Your task to perform on an android device: toggle improve location accuracy Image 0: 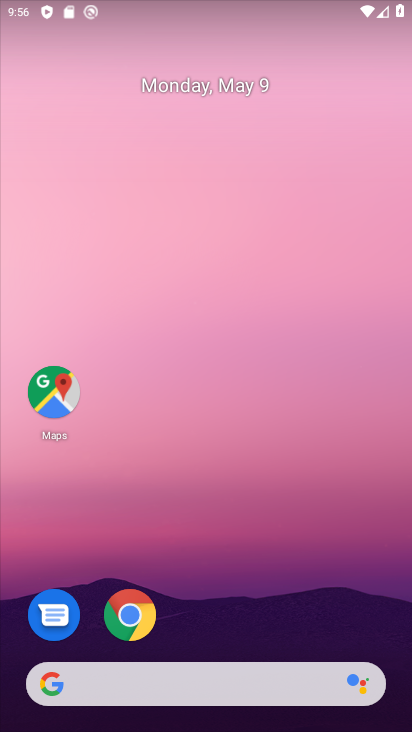
Step 0: drag from (237, 540) to (273, 164)
Your task to perform on an android device: toggle improve location accuracy Image 1: 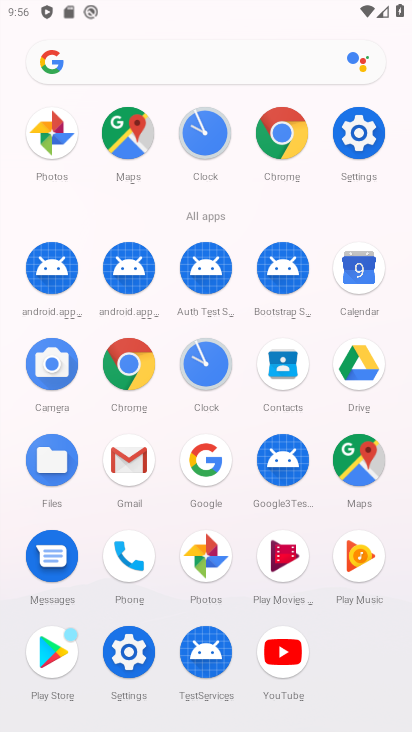
Step 1: click (136, 645)
Your task to perform on an android device: toggle improve location accuracy Image 2: 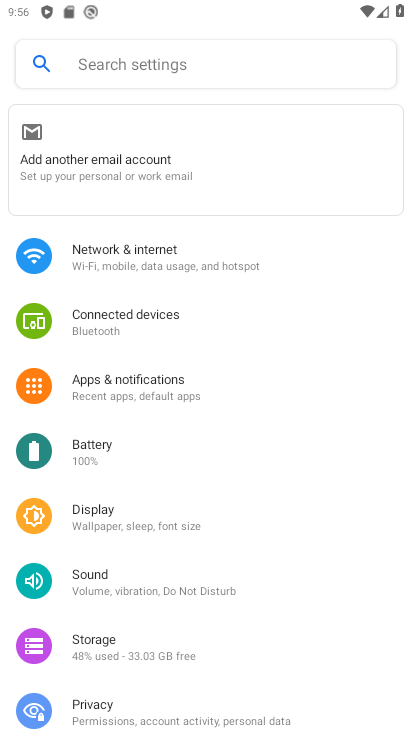
Step 2: drag from (226, 580) to (255, 268)
Your task to perform on an android device: toggle improve location accuracy Image 3: 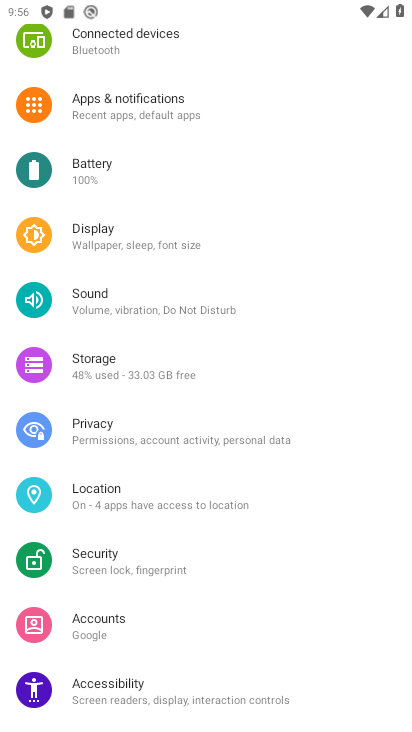
Step 3: click (149, 496)
Your task to perform on an android device: toggle improve location accuracy Image 4: 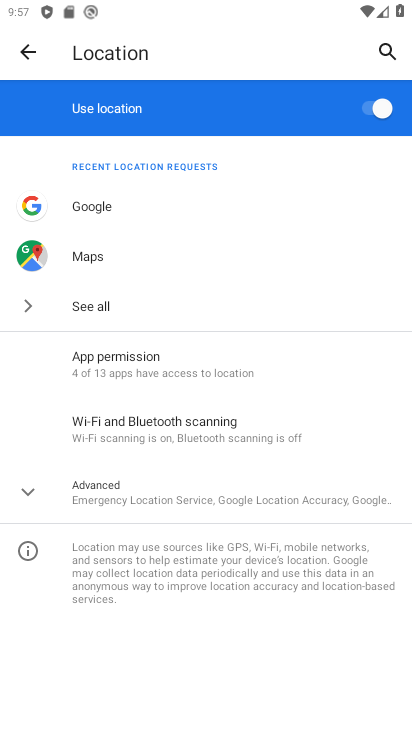
Step 4: click (171, 497)
Your task to perform on an android device: toggle improve location accuracy Image 5: 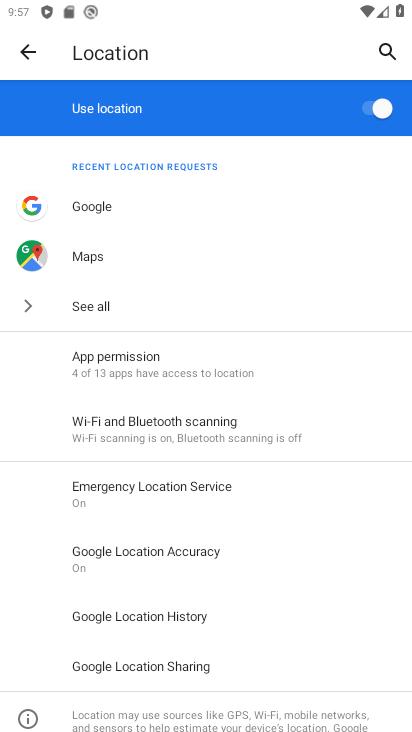
Step 5: click (215, 549)
Your task to perform on an android device: toggle improve location accuracy Image 6: 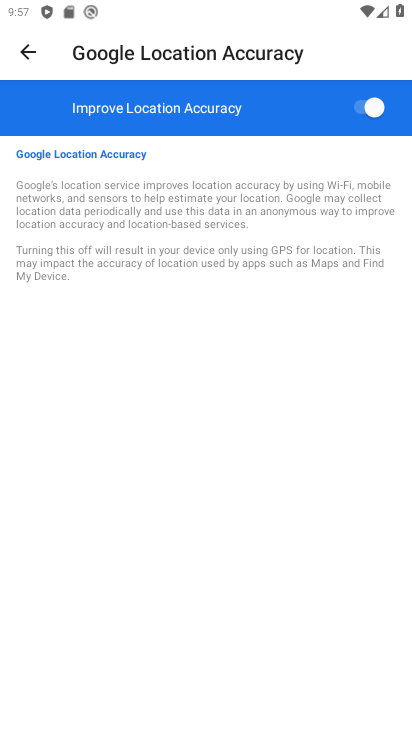
Step 6: click (358, 101)
Your task to perform on an android device: toggle improve location accuracy Image 7: 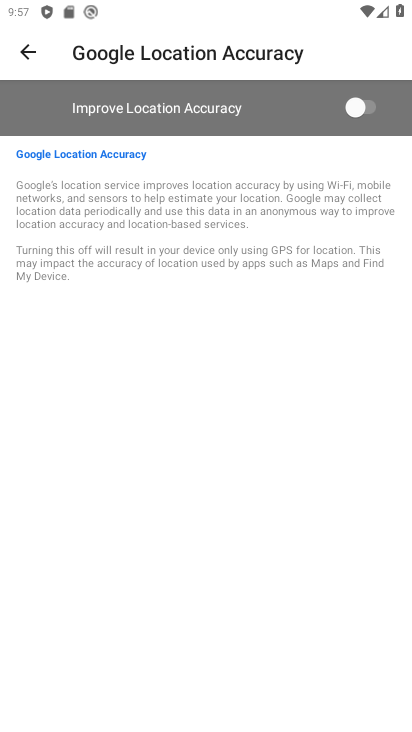
Step 7: task complete